Your task to perform on an android device: turn on wifi Image 0: 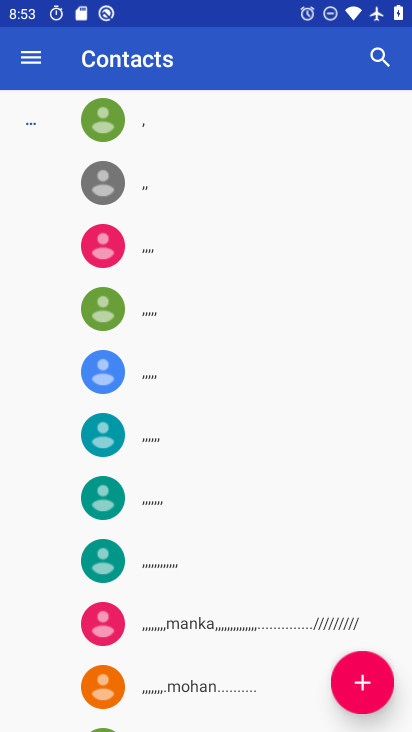
Step 0: press home button
Your task to perform on an android device: turn on wifi Image 1: 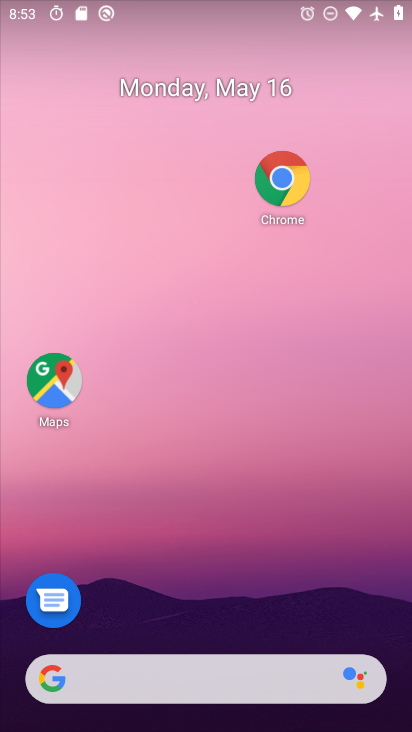
Step 1: drag from (186, 668) to (325, 178)
Your task to perform on an android device: turn on wifi Image 2: 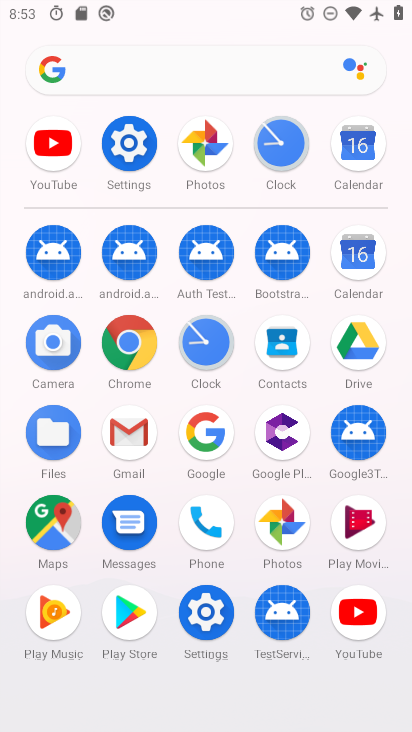
Step 2: click (108, 124)
Your task to perform on an android device: turn on wifi Image 3: 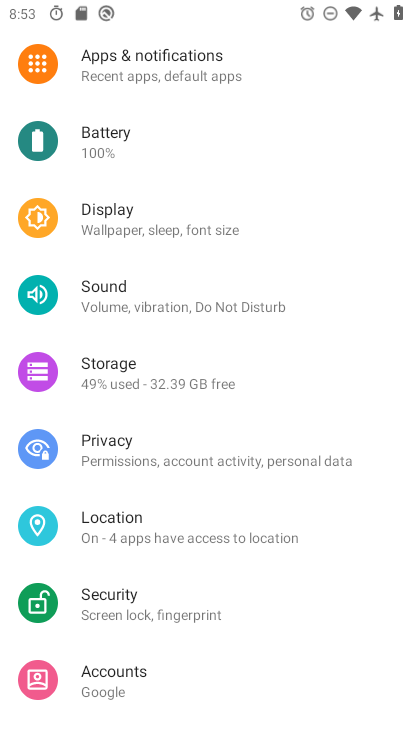
Step 3: drag from (252, 108) to (191, 461)
Your task to perform on an android device: turn on wifi Image 4: 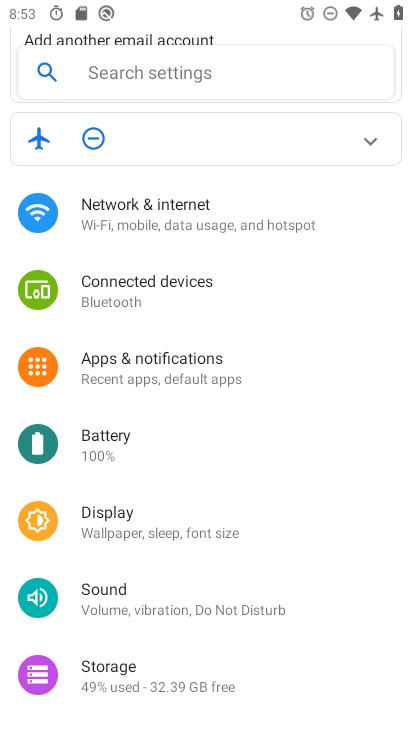
Step 4: click (188, 212)
Your task to perform on an android device: turn on wifi Image 5: 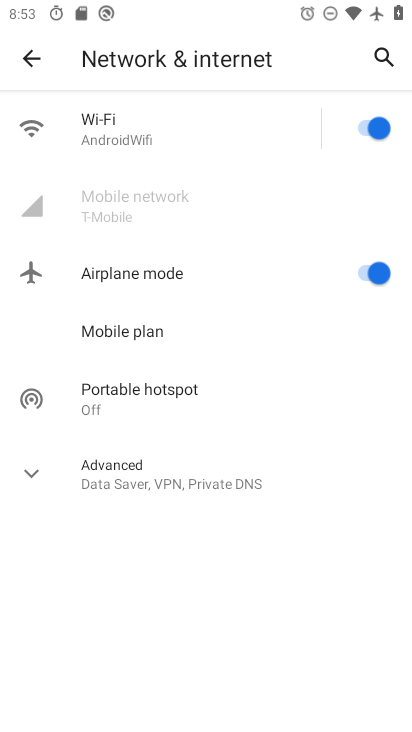
Step 5: task complete